Your task to perform on an android device: change notification settings in the gmail app Image 0: 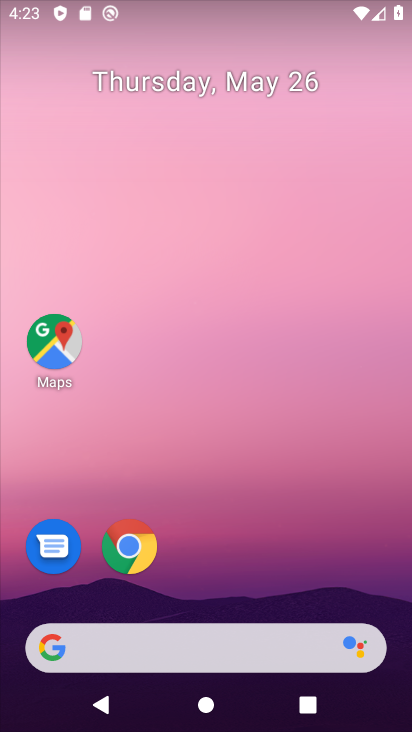
Step 0: drag from (267, 581) to (168, 214)
Your task to perform on an android device: change notification settings in the gmail app Image 1: 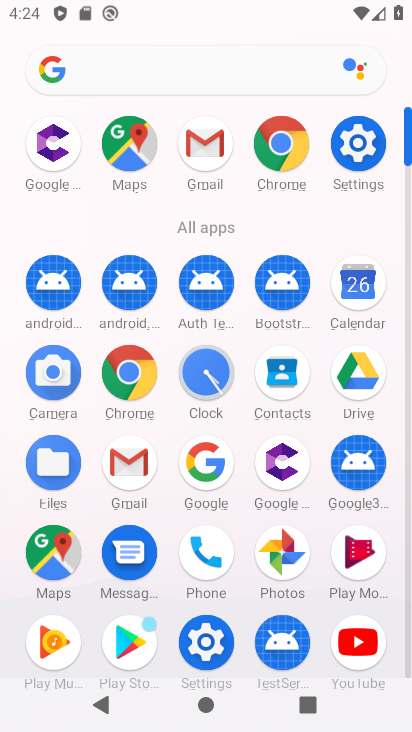
Step 1: click (190, 153)
Your task to perform on an android device: change notification settings in the gmail app Image 2: 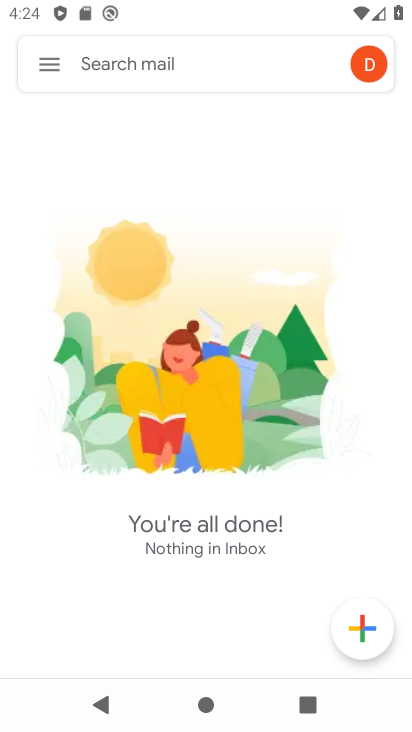
Step 2: click (49, 62)
Your task to perform on an android device: change notification settings in the gmail app Image 3: 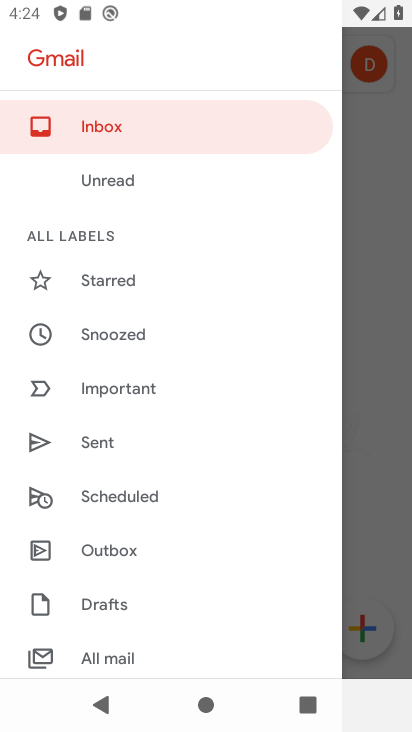
Step 3: drag from (151, 641) to (107, 181)
Your task to perform on an android device: change notification settings in the gmail app Image 4: 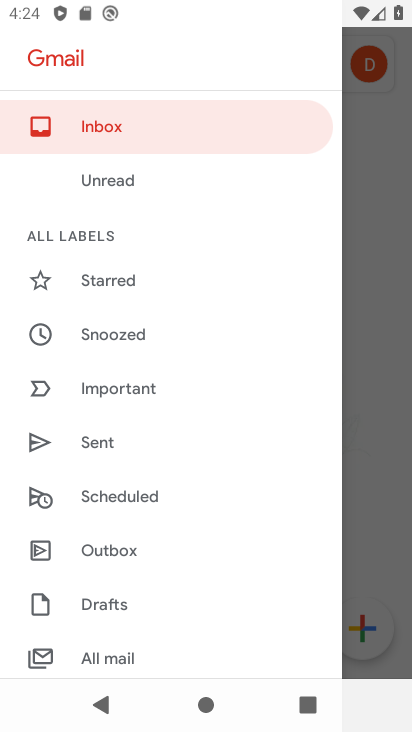
Step 4: drag from (137, 645) to (36, 130)
Your task to perform on an android device: change notification settings in the gmail app Image 5: 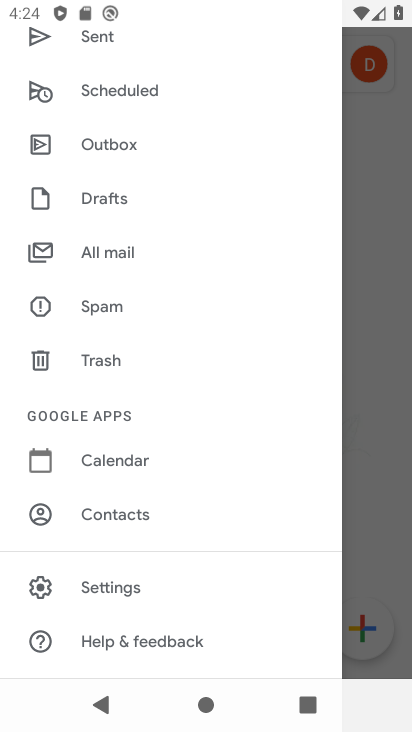
Step 5: click (144, 579)
Your task to perform on an android device: change notification settings in the gmail app Image 6: 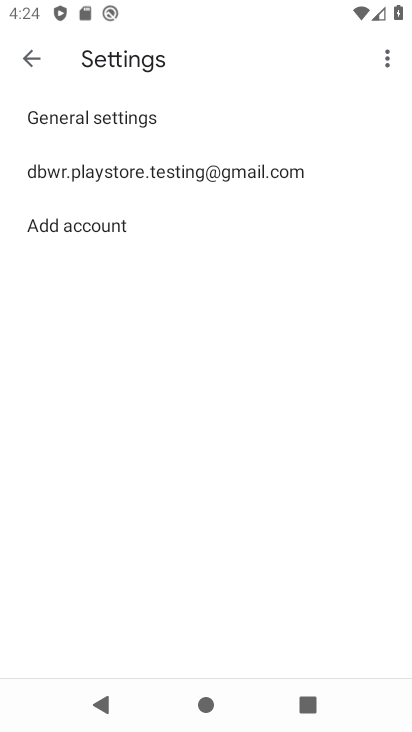
Step 6: click (253, 164)
Your task to perform on an android device: change notification settings in the gmail app Image 7: 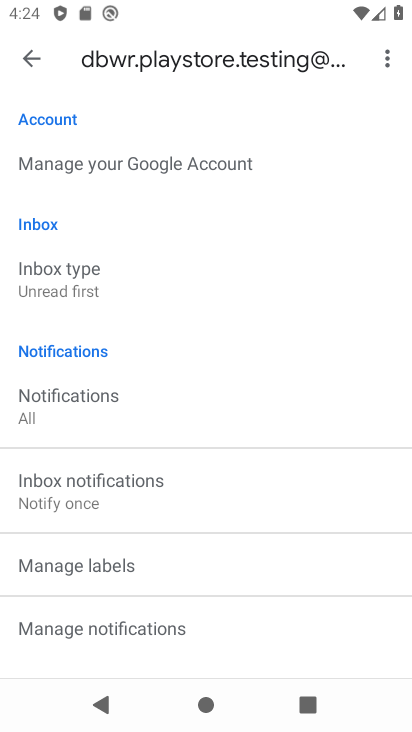
Step 7: click (192, 647)
Your task to perform on an android device: change notification settings in the gmail app Image 8: 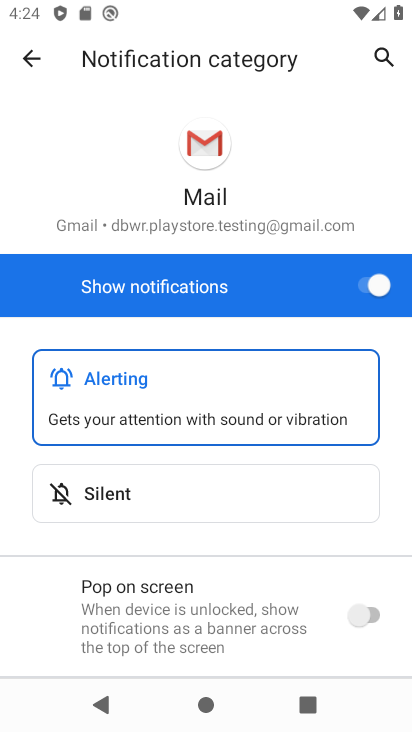
Step 8: drag from (264, 584) to (184, 291)
Your task to perform on an android device: change notification settings in the gmail app Image 9: 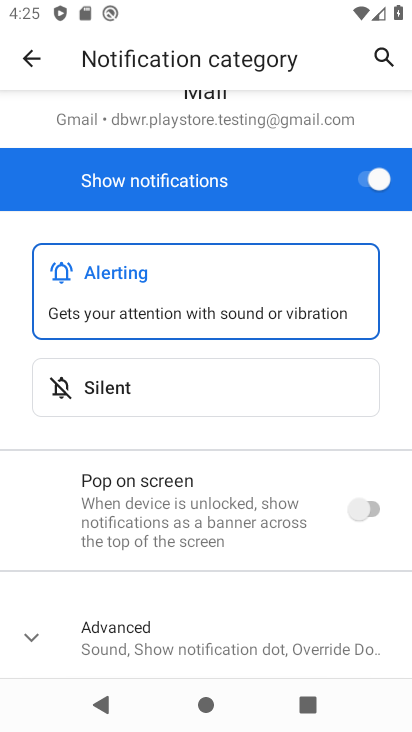
Step 9: click (215, 364)
Your task to perform on an android device: change notification settings in the gmail app Image 10: 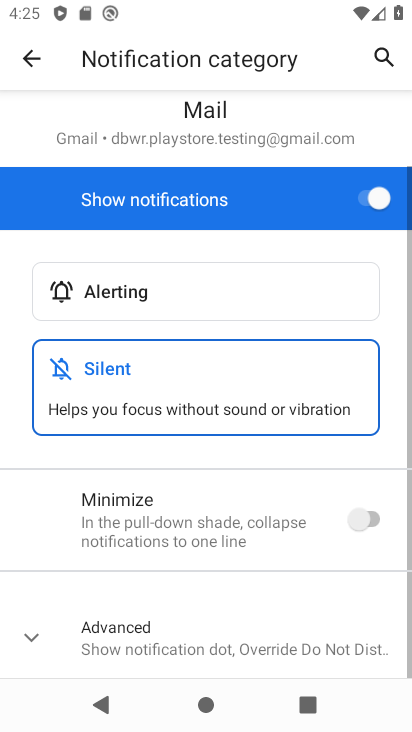
Step 10: click (356, 512)
Your task to perform on an android device: change notification settings in the gmail app Image 11: 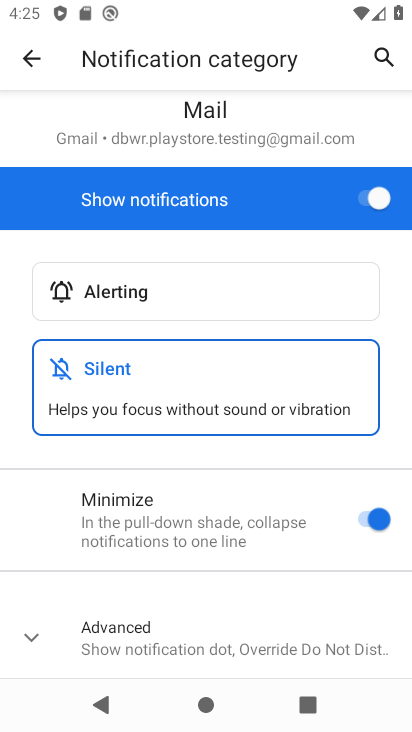
Step 11: task complete